Your task to perform on an android device: search for starred emails in the gmail app Image 0: 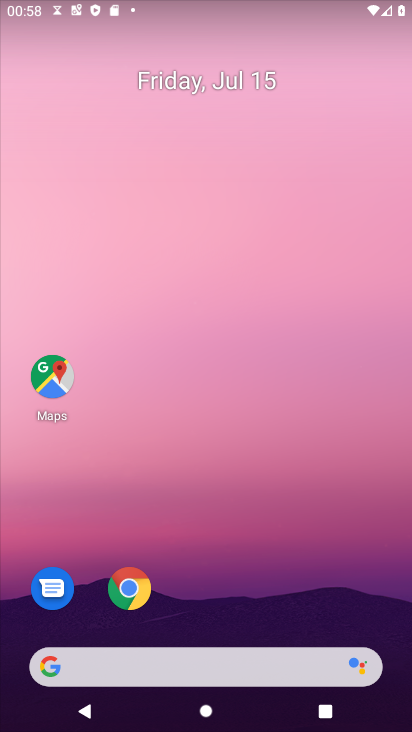
Step 0: drag from (202, 606) to (252, 2)
Your task to perform on an android device: search for starred emails in the gmail app Image 1: 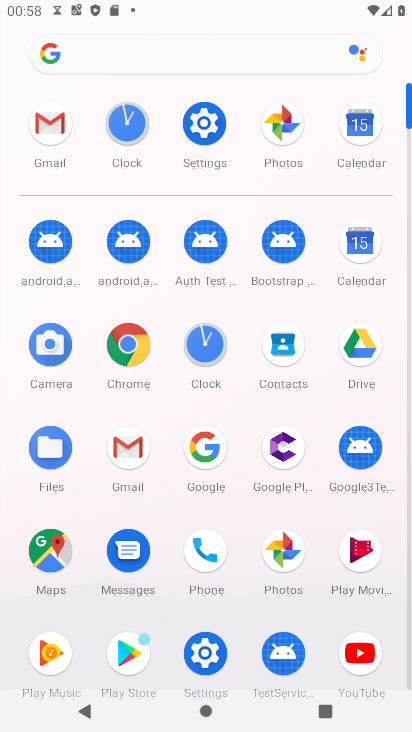
Step 1: click (48, 123)
Your task to perform on an android device: search for starred emails in the gmail app Image 2: 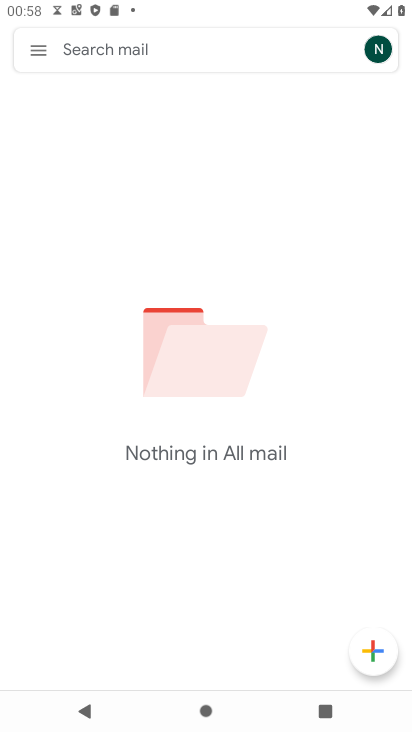
Step 2: click (36, 45)
Your task to perform on an android device: search for starred emails in the gmail app Image 3: 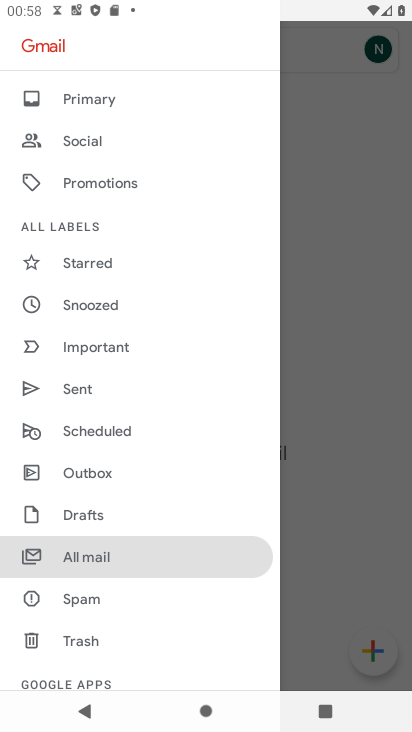
Step 3: click (81, 261)
Your task to perform on an android device: search for starred emails in the gmail app Image 4: 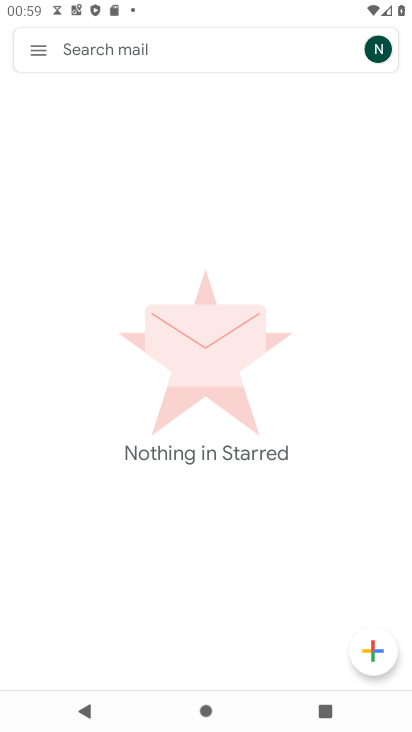
Step 4: task complete